Your task to perform on an android device: Open my contact list Image 0: 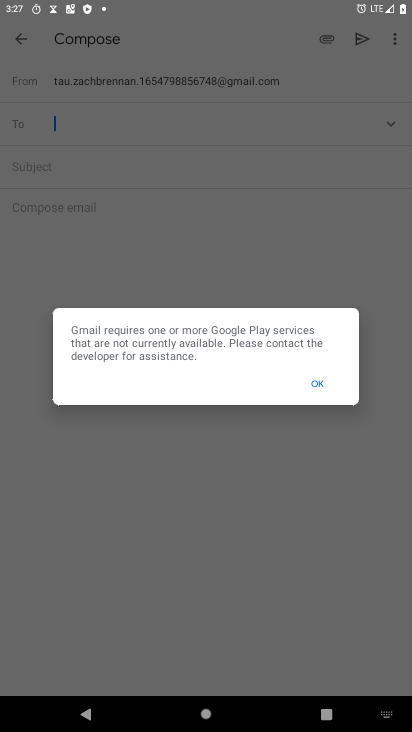
Step 0: press home button
Your task to perform on an android device: Open my contact list Image 1: 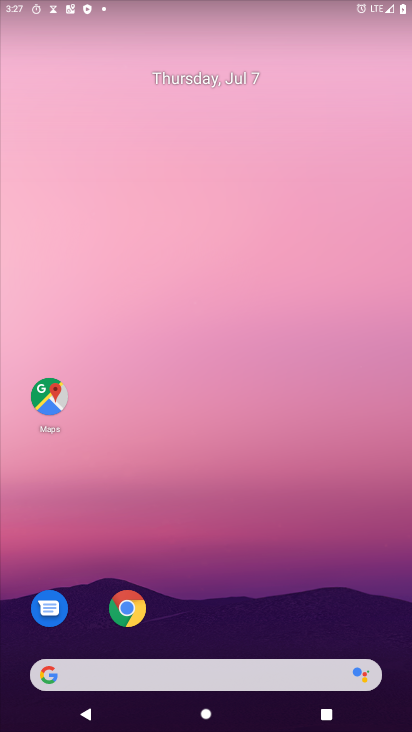
Step 1: drag from (223, 709) to (195, 151)
Your task to perform on an android device: Open my contact list Image 2: 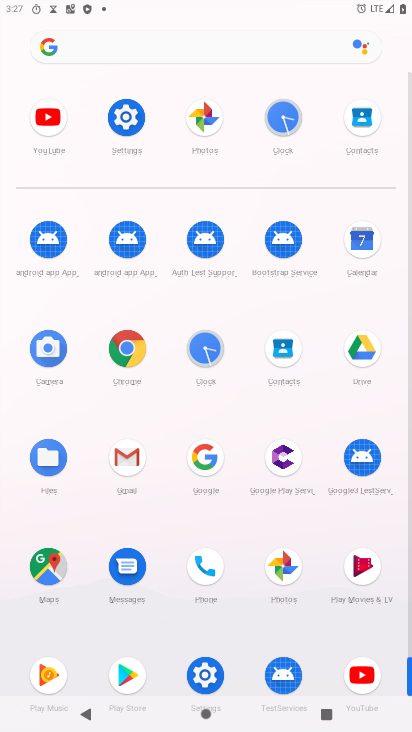
Step 2: click (289, 350)
Your task to perform on an android device: Open my contact list Image 3: 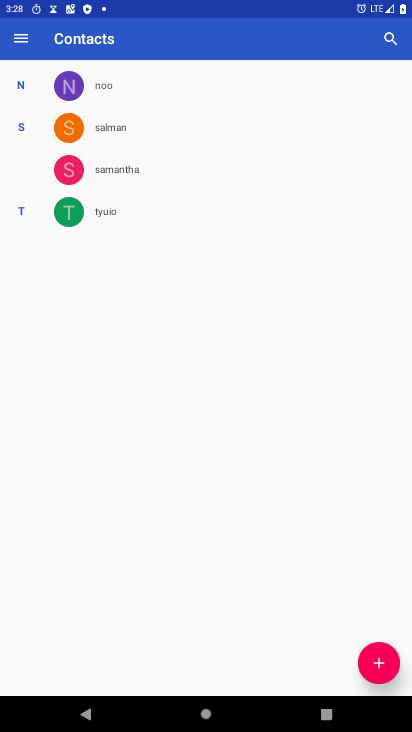
Step 3: task complete